Your task to perform on an android device: turn smart compose on in the gmail app Image 0: 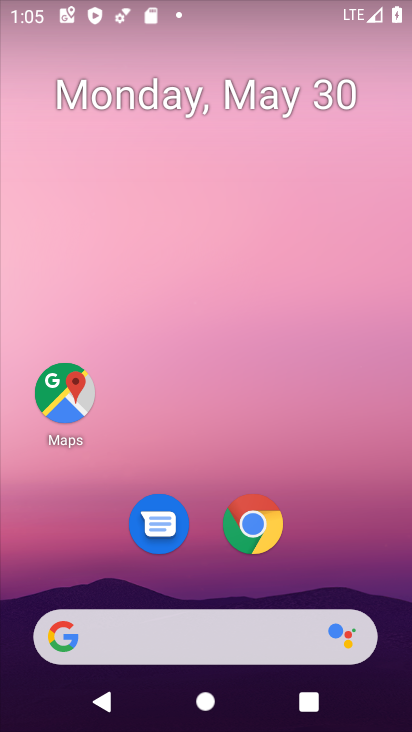
Step 0: drag from (224, 454) to (232, 32)
Your task to perform on an android device: turn smart compose on in the gmail app Image 1: 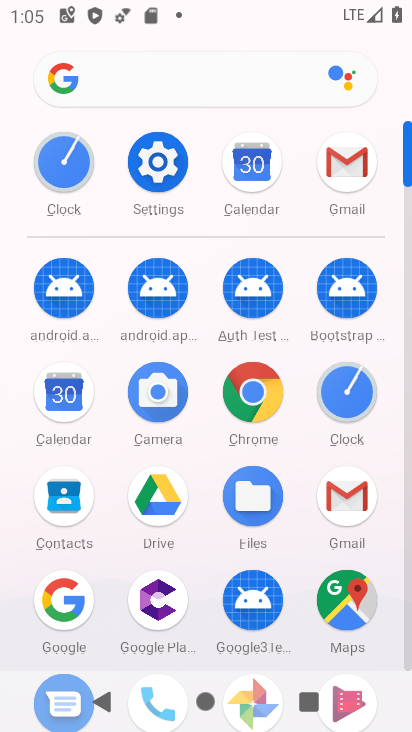
Step 1: click (352, 161)
Your task to perform on an android device: turn smart compose on in the gmail app Image 2: 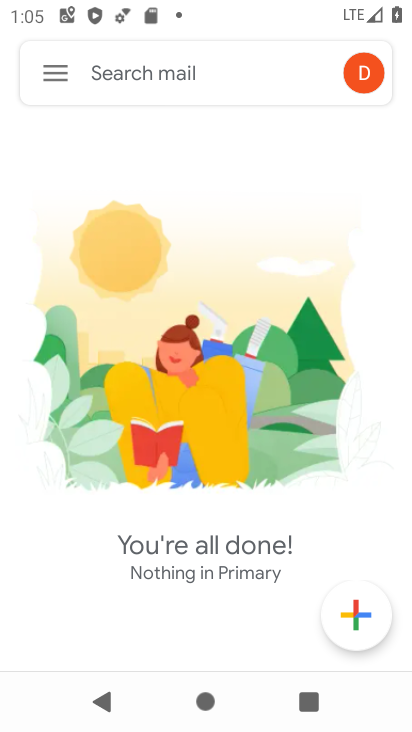
Step 2: click (54, 76)
Your task to perform on an android device: turn smart compose on in the gmail app Image 3: 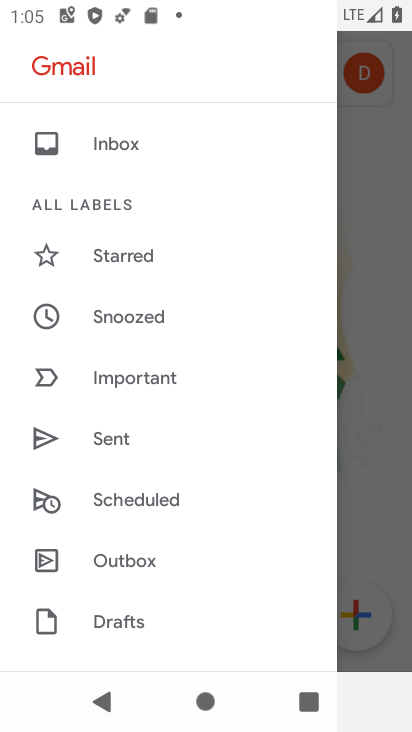
Step 3: drag from (183, 549) to (257, 37)
Your task to perform on an android device: turn smart compose on in the gmail app Image 4: 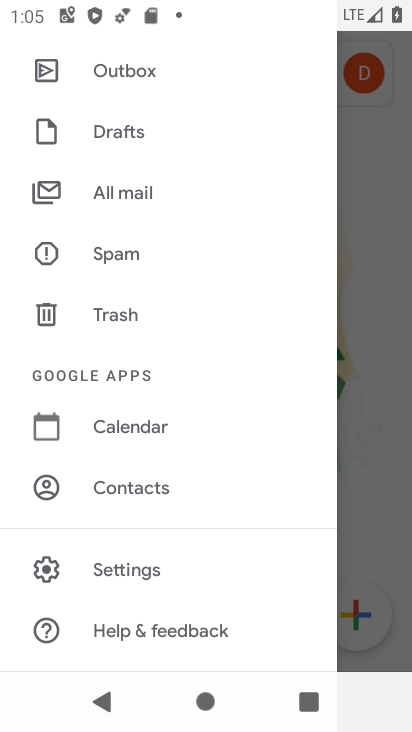
Step 4: click (144, 568)
Your task to perform on an android device: turn smart compose on in the gmail app Image 5: 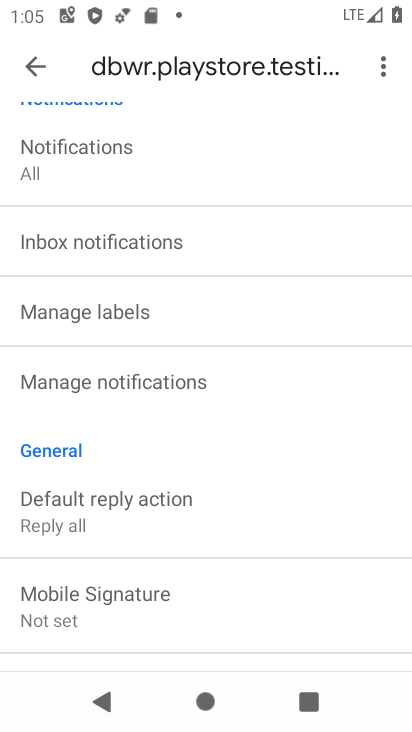
Step 5: task complete